Your task to perform on an android device: Search for Mexican restaurants on Maps Image 0: 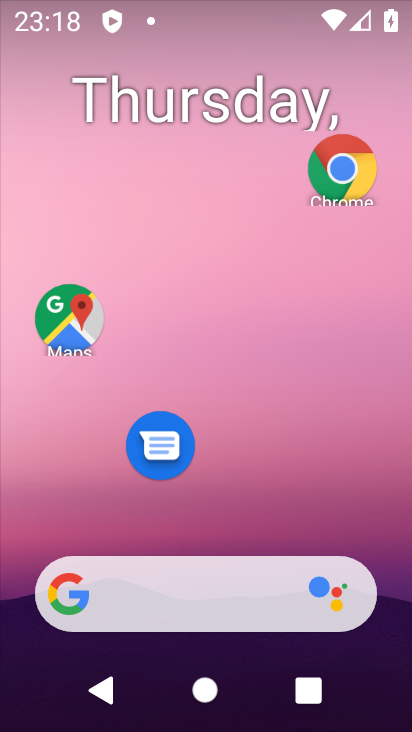
Step 0: drag from (197, 480) to (217, 116)
Your task to perform on an android device: Search for Mexican restaurants on Maps Image 1: 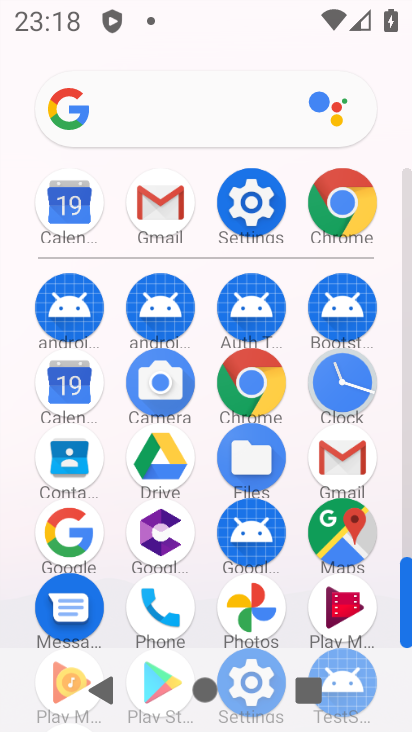
Step 1: click (356, 538)
Your task to perform on an android device: Search for Mexican restaurants on Maps Image 2: 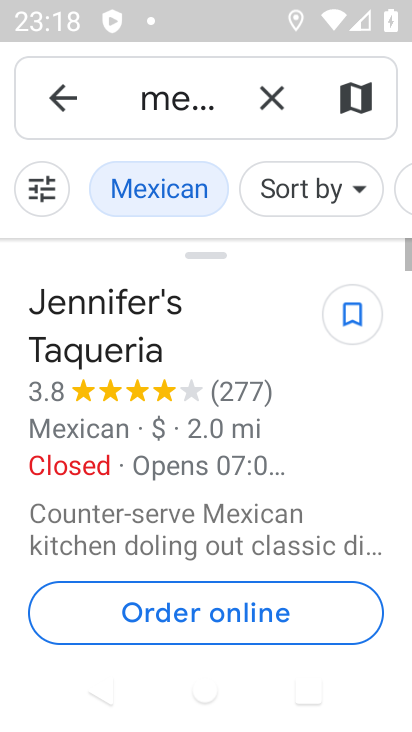
Step 2: drag from (208, 546) to (236, 164)
Your task to perform on an android device: Search for Mexican restaurants on Maps Image 3: 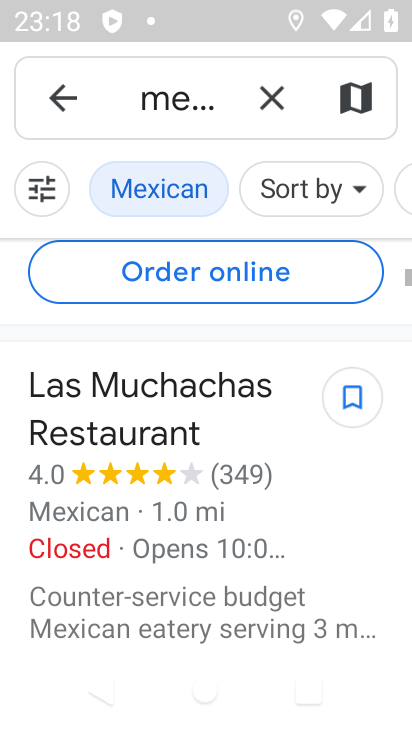
Step 3: drag from (211, 251) to (275, 728)
Your task to perform on an android device: Search for Mexican restaurants on Maps Image 4: 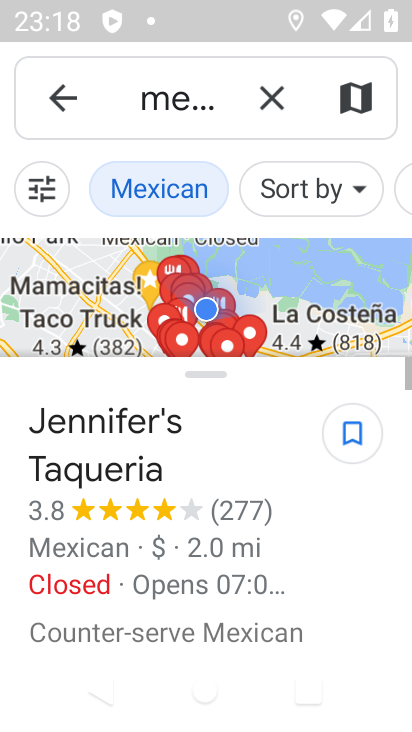
Step 4: click (213, 100)
Your task to perform on an android device: Search for Mexican restaurants on Maps Image 5: 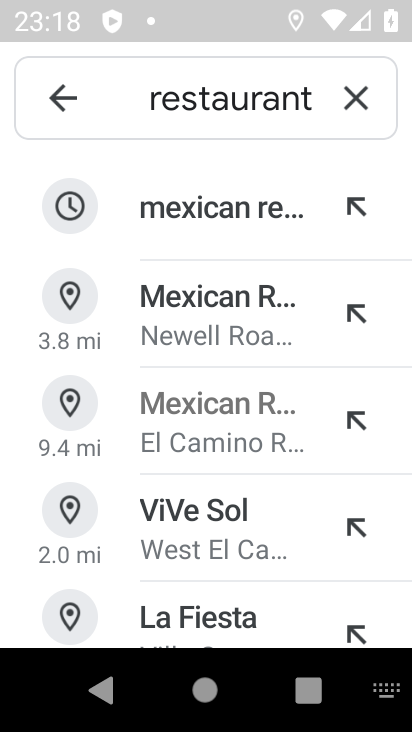
Step 5: click (203, 214)
Your task to perform on an android device: Search for Mexican restaurants on Maps Image 6: 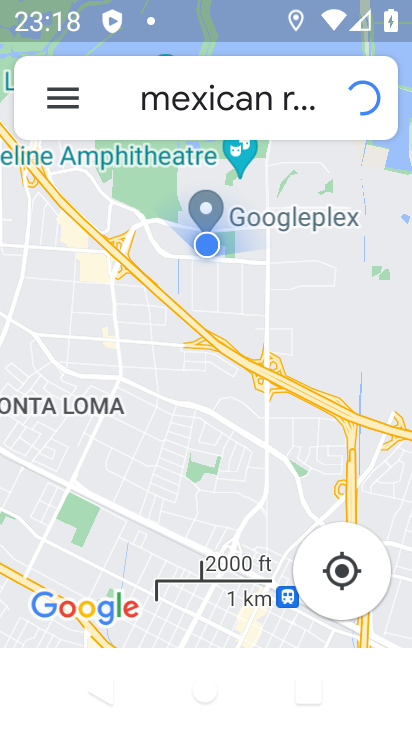
Step 6: task complete